Your task to perform on an android device: Open calendar and show me the third week of next month Image 0: 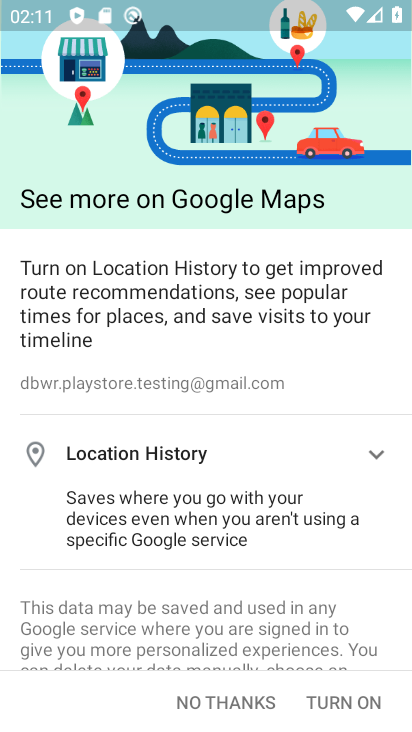
Step 0: press home button
Your task to perform on an android device: Open calendar and show me the third week of next month Image 1: 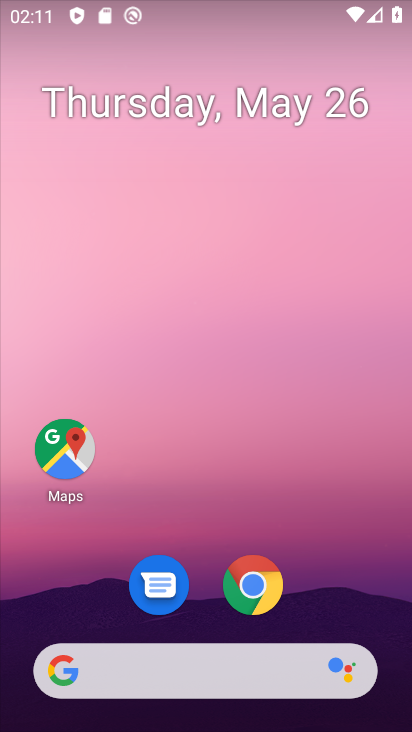
Step 1: drag from (216, 514) to (248, 43)
Your task to perform on an android device: Open calendar and show me the third week of next month Image 2: 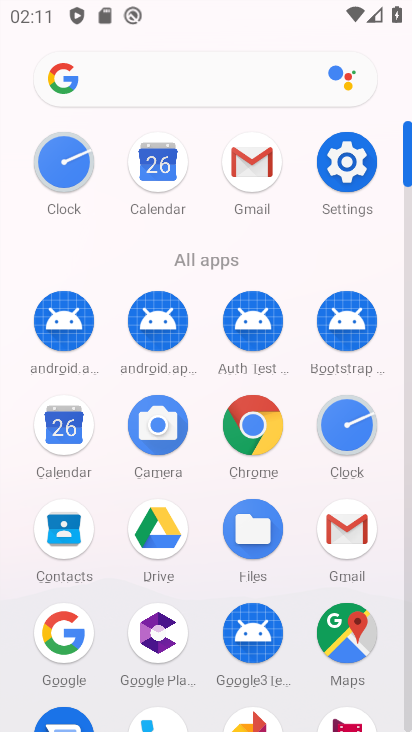
Step 2: click (169, 152)
Your task to perform on an android device: Open calendar and show me the third week of next month Image 3: 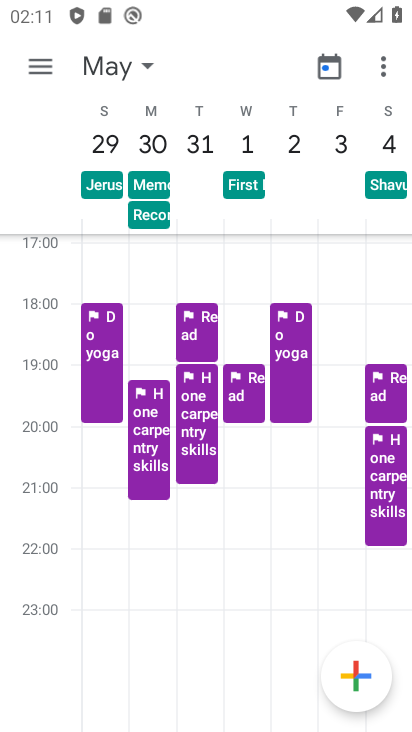
Step 3: task complete